Your task to perform on an android device: see tabs open on other devices in the chrome app Image 0: 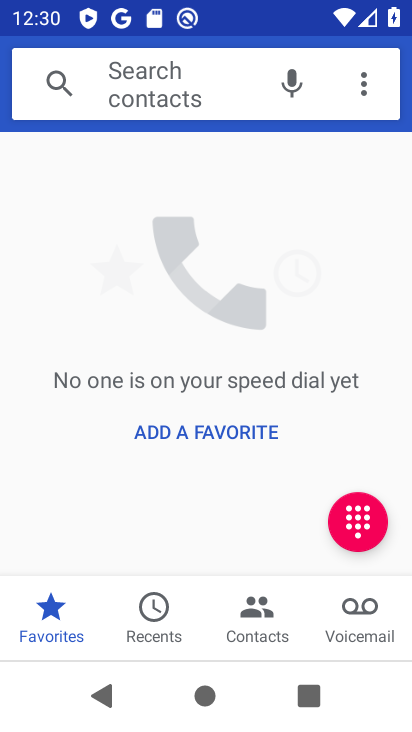
Step 0: press home button
Your task to perform on an android device: see tabs open on other devices in the chrome app Image 1: 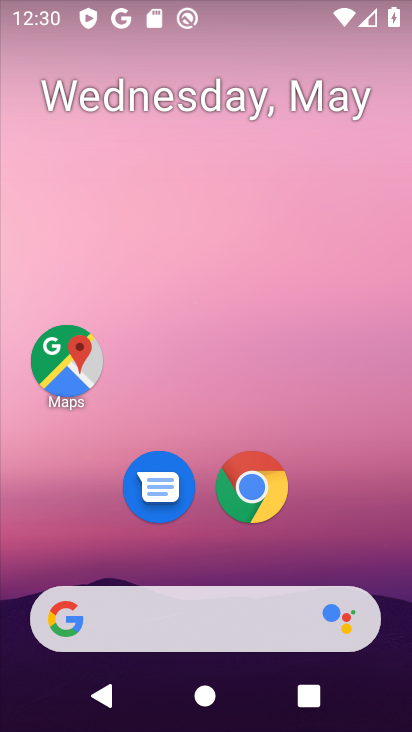
Step 1: click (265, 475)
Your task to perform on an android device: see tabs open on other devices in the chrome app Image 2: 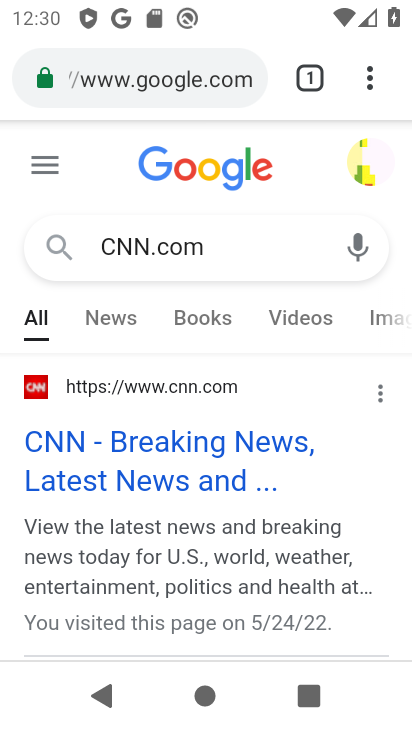
Step 2: click (378, 74)
Your task to perform on an android device: see tabs open on other devices in the chrome app Image 3: 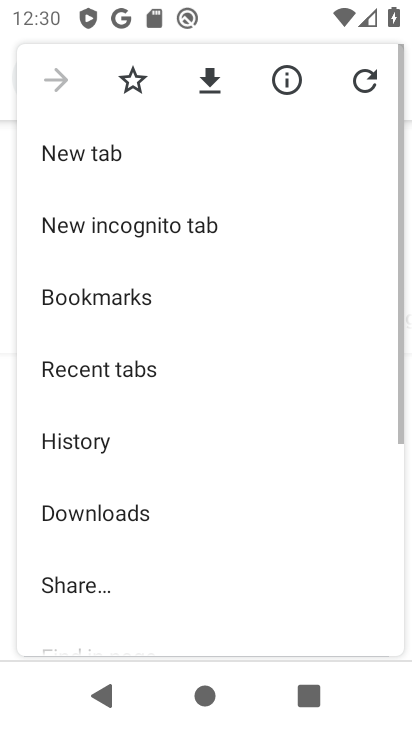
Step 3: click (120, 376)
Your task to perform on an android device: see tabs open on other devices in the chrome app Image 4: 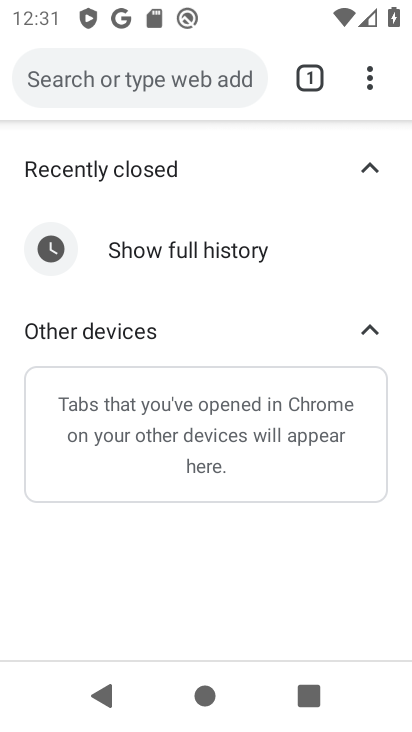
Step 4: task complete